Your task to perform on an android device: turn off priority inbox in the gmail app Image 0: 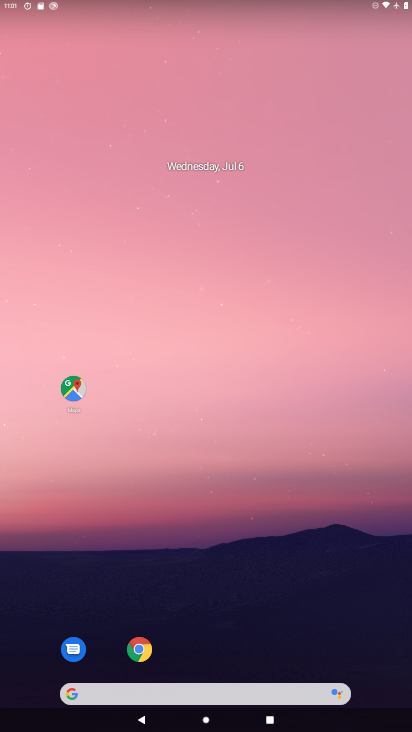
Step 0: click (155, 246)
Your task to perform on an android device: turn off priority inbox in the gmail app Image 1: 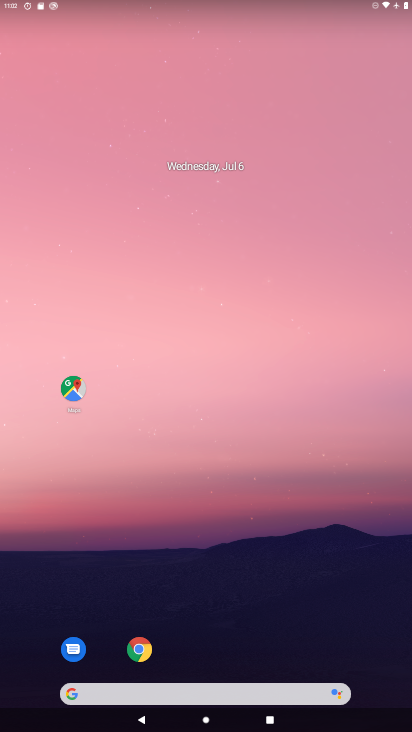
Step 1: drag from (394, 690) to (310, 37)
Your task to perform on an android device: turn off priority inbox in the gmail app Image 2: 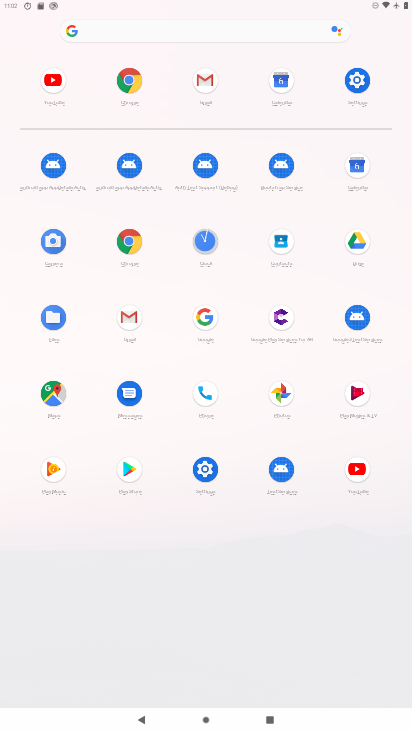
Step 2: click (189, 82)
Your task to perform on an android device: turn off priority inbox in the gmail app Image 3: 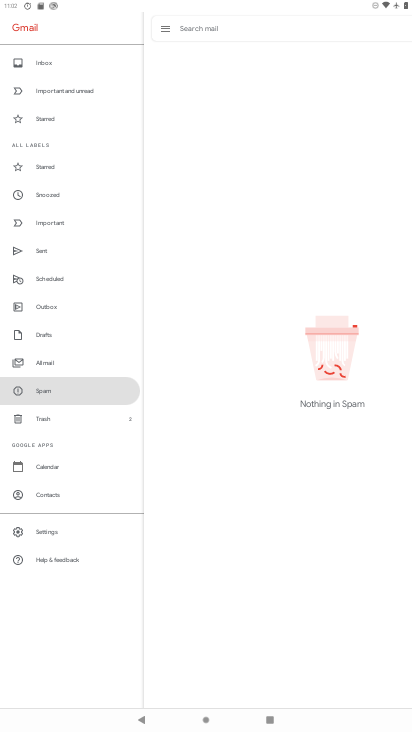
Step 3: click (38, 529)
Your task to perform on an android device: turn off priority inbox in the gmail app Image 4: 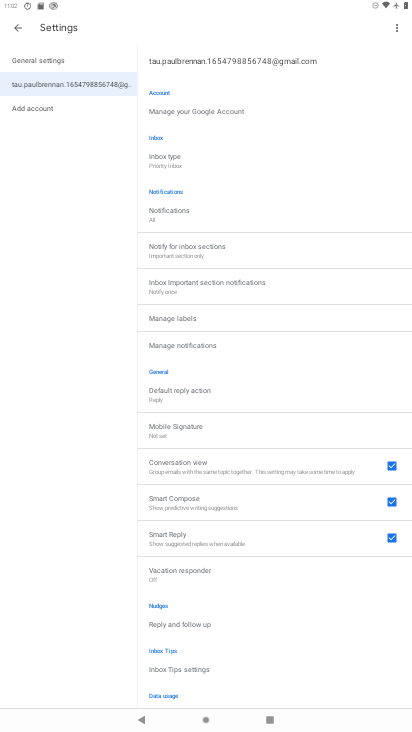
Step 4: click (166, 156)
Your task to perform on an android device: turn off priority inbox in the gmail app Image 5: 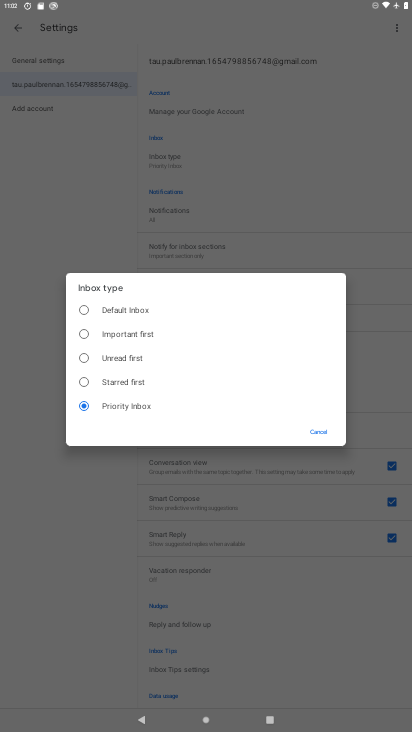
Step 5: click (85, 376)
Your task to perform on an android device: turn off priority inbox in the gmail app Image 6: 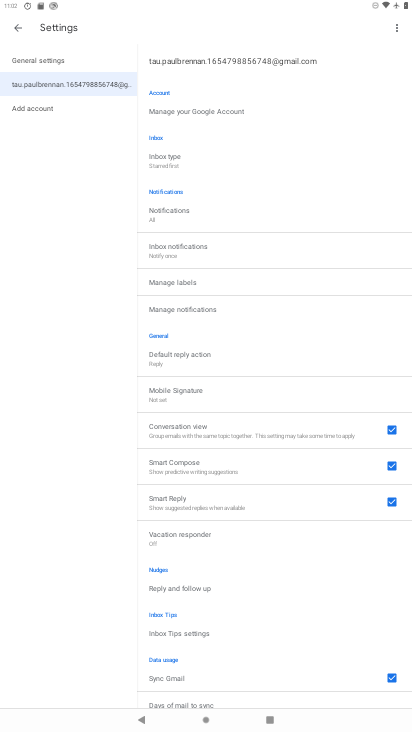
Step 6: task complete